Your task to perform on an android device: clear history in the chrome app Image 0: 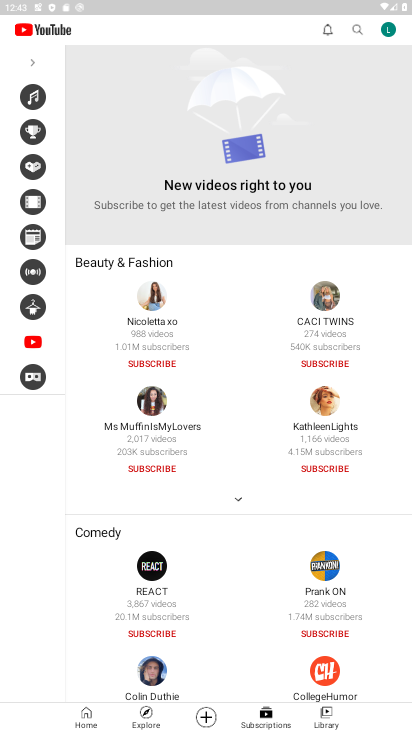
Step 0: press home button
Your task to perform on an android device: clear history in the chrome app Image 1: 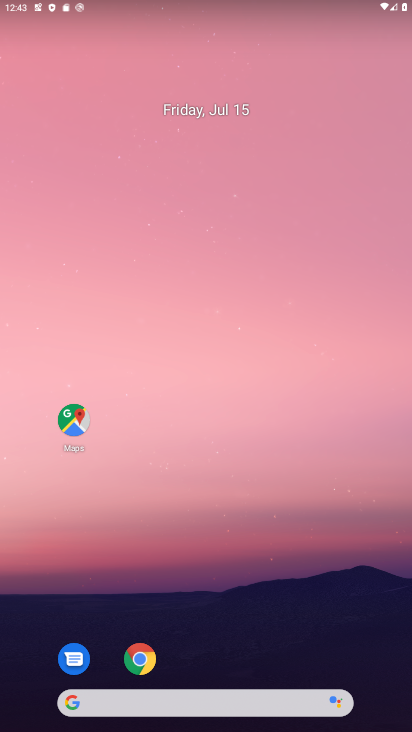
Step 1: drag from (143, 650) to (178, 650)
Your task to perform on an android device: clear history in the chrome app Image 2: 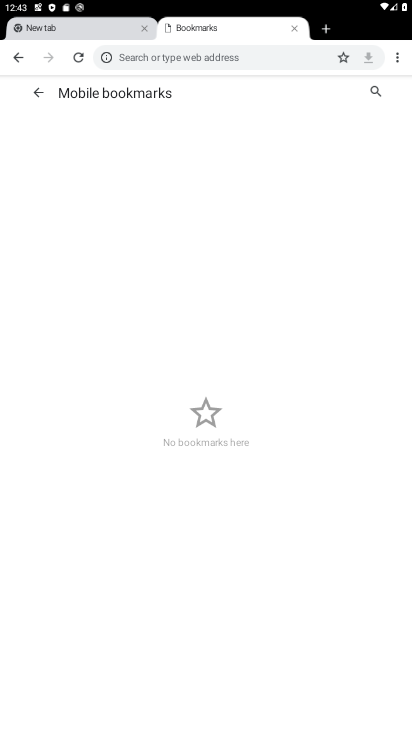
Step 2: click (401, 56)
Your task to perform on an android device: clear history in the chrome app Image 3: 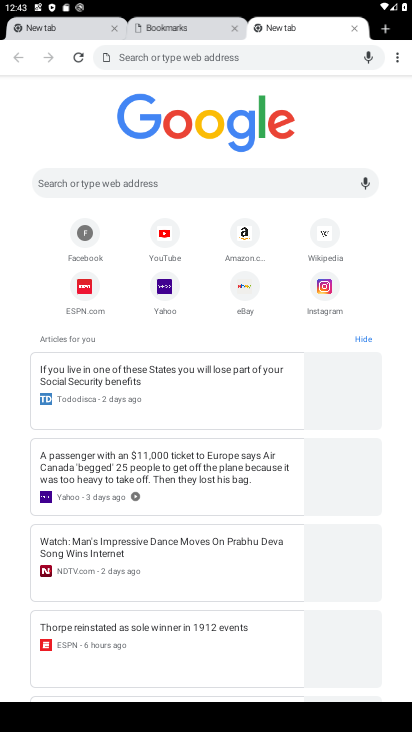
Step 3: click (393, 60)
Your task to perform on an android device: clear history in the chrome app Image 4: 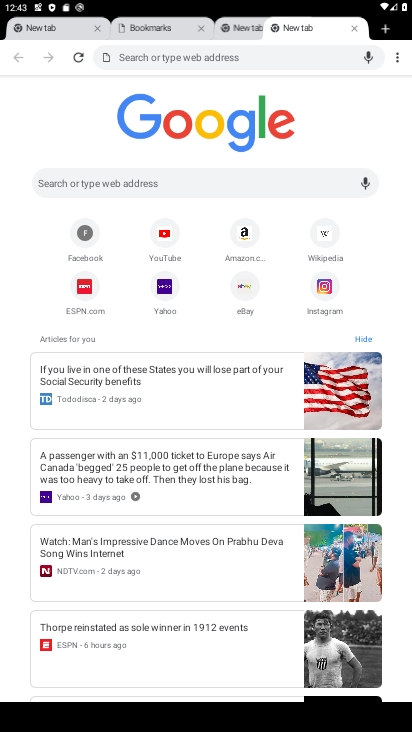
Step 4: click (393, 60)
Your task to perform on an android device: clear history in the chrome app Image 5: 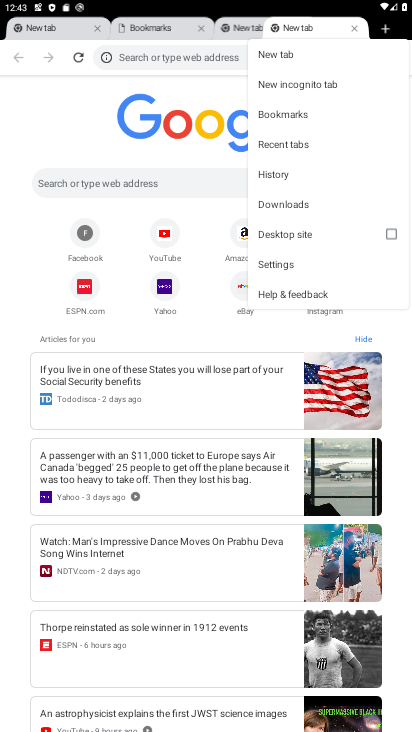
Step 5: click (288, 178)
Your task to perform on an android device: clear history in the chrome app Image 6: 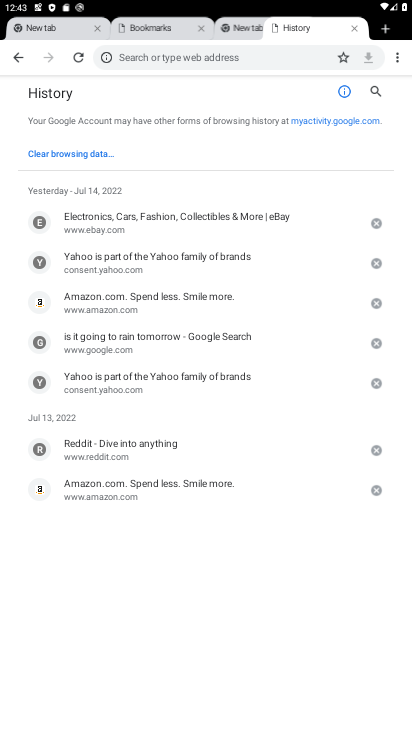
Step 6: click (94, 149)
Your task to perform on an android device: clear history in the chrome app Image 7: 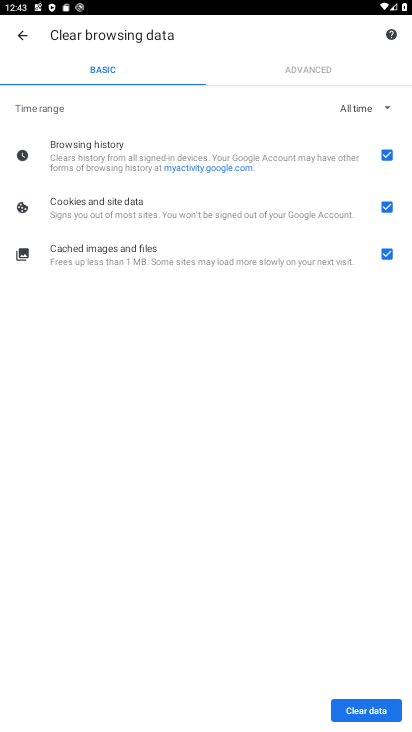
Step 7: click (370, 709)
Your task to perform on an android device: clear history in the chrome app Image 8: 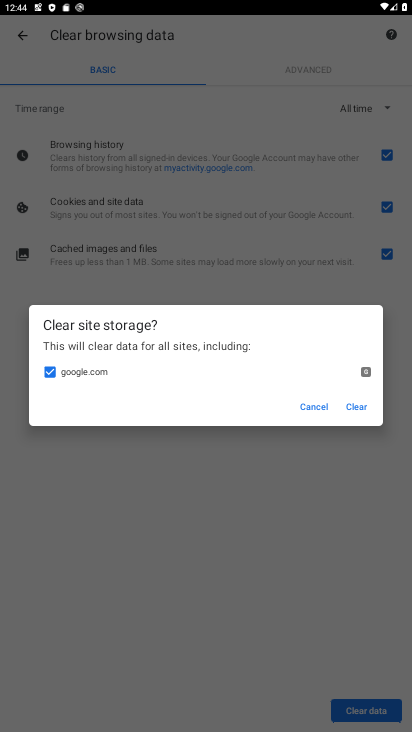
Step 8: click (345, 403)
Your task to perform on an android device: clear history in the chrome app Image 9: 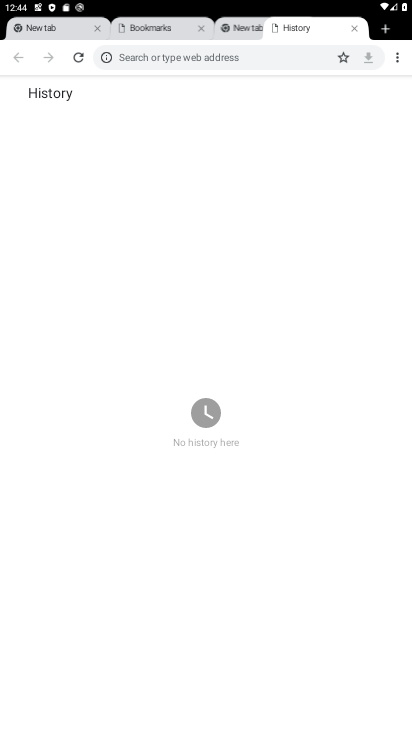
Step 9: task complete